Your task to perform on an android device: change the clock display to digital Image 0: 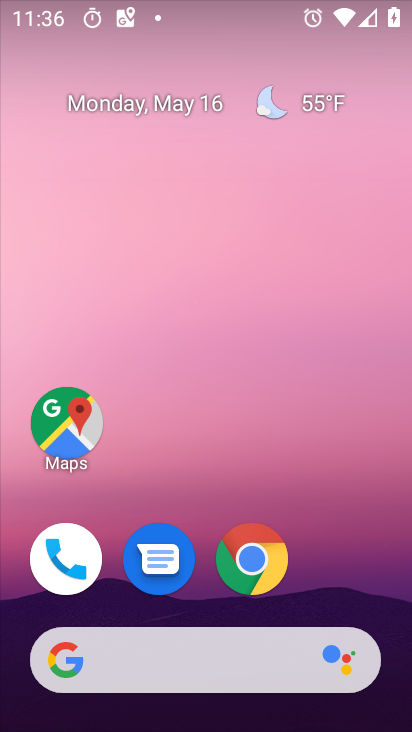
Step 0: drag from (348, 562) to (202, 38)
Your task to perform on an android device: change the clock display to digital Image 1: 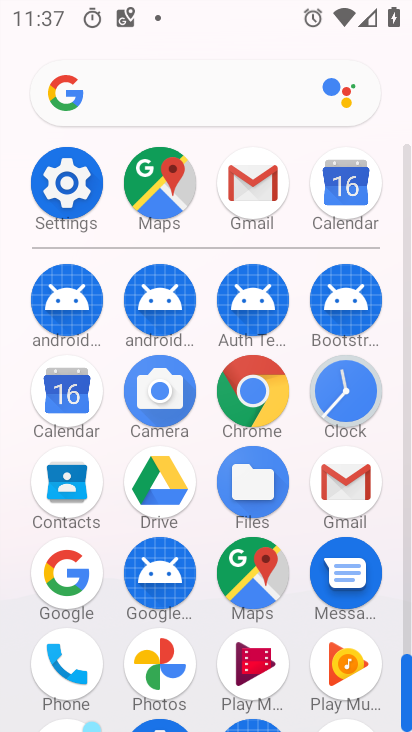
Step 1: click (335, 393)
Your task to perform on an android device: change the clock display to digital Image 2: 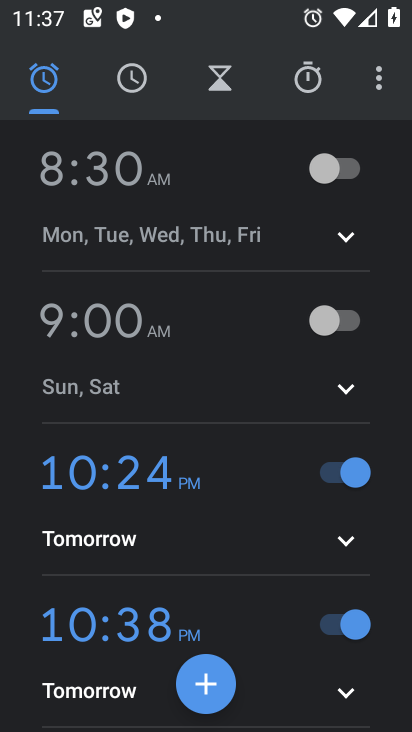
Step 2: click (381, 66)
Your task to perform on an android device: change the clock display to digital Image 3: 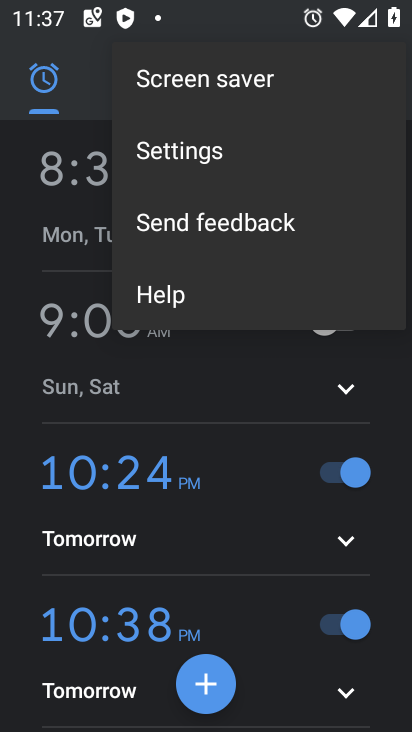
Step 3: click (191, 160)
Your task to perform on an android device: change the clock display to digital Image 4: 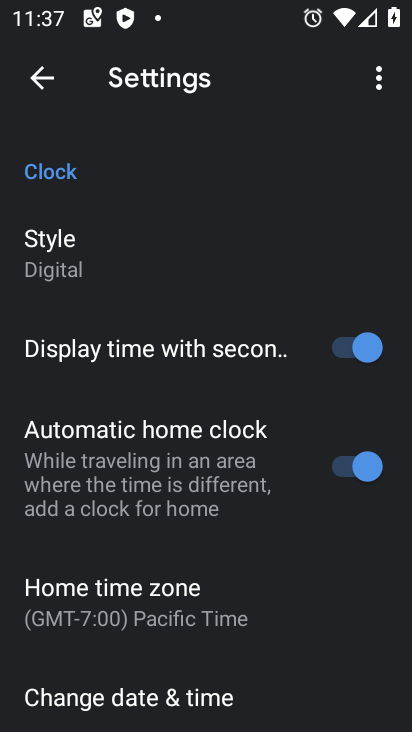
Step 4: click (77, 246)
Your task to perform on an android device: change the clock display to digital Image 5: 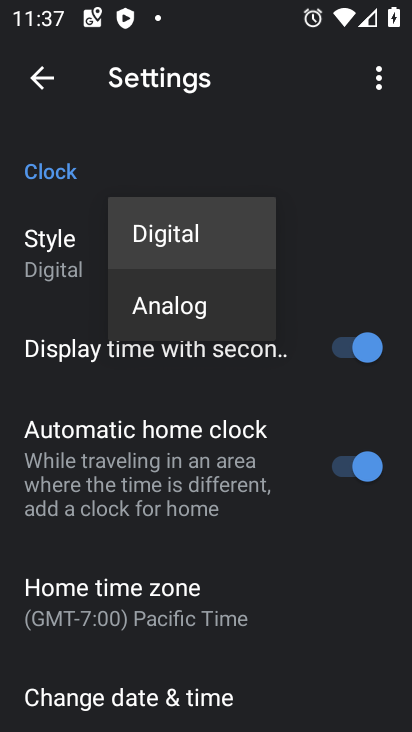
Step 5: task complete